Your task to perform on an android device: Do I have any events tomorrow? Image 0: 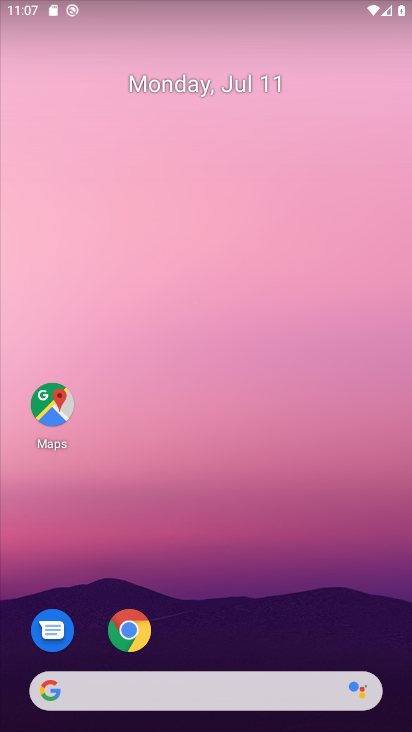
Step 0: drag from (236, 634) to (310, 4)
Your task to perform on an android device: Do I have any events tomorrow? Image 1: 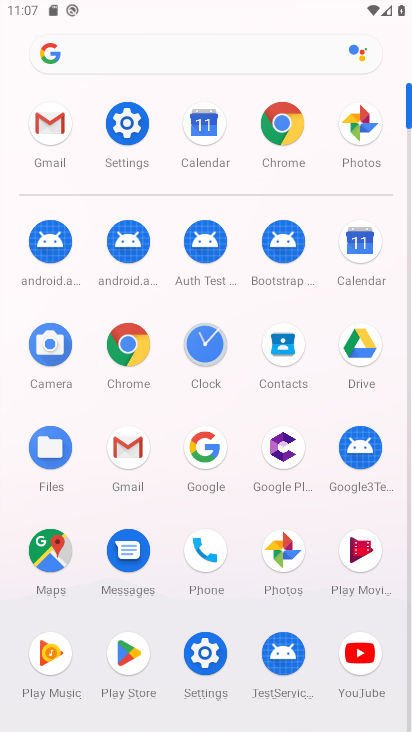
Step 1: click (366, 239)
Your task to perform on an android device: Do I have any events tomorrow? Image 2: 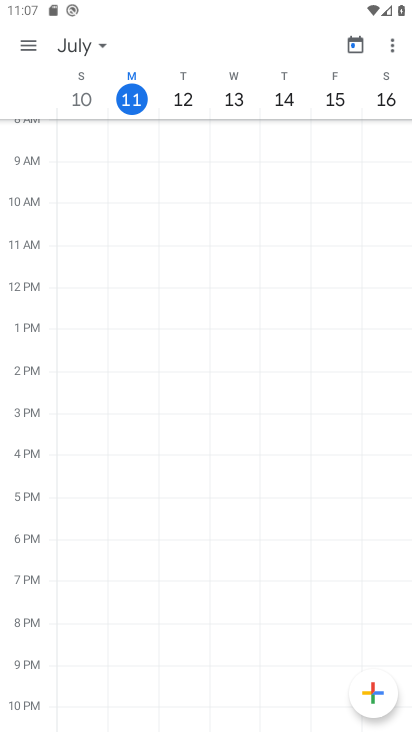
Step 2: click (26, 46)
Your task to perform on an android device: Do I have any events tomorrow? Image 3: 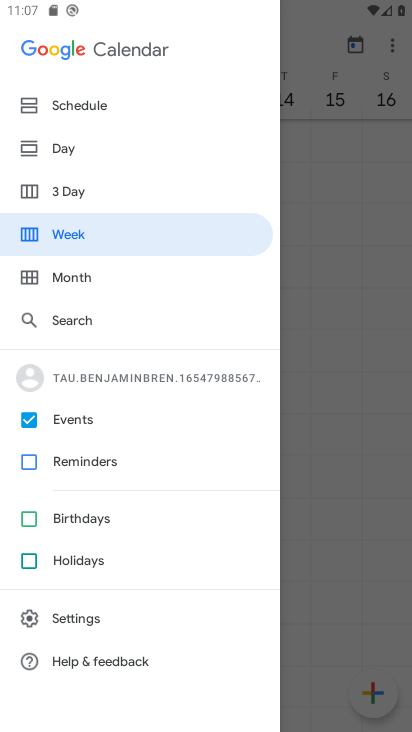
Step 3: click (87, 198)
Your task to perform on an android device: Do I have any events tomorrow? Image 4: 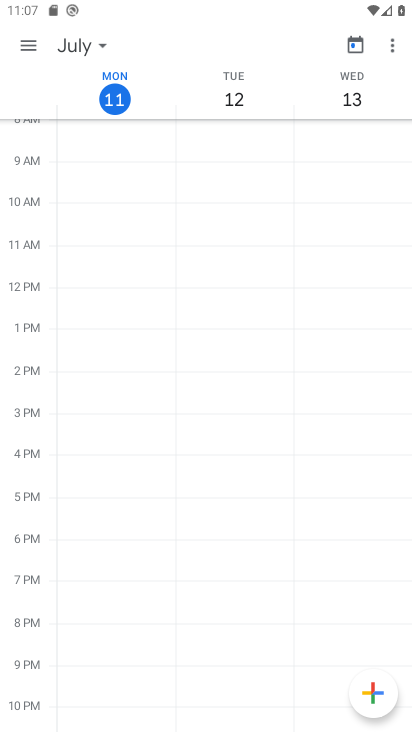
Step 4: task complete